Your task to perform on an android device: Search for the new nike air max shoes on Nike. Image 0: 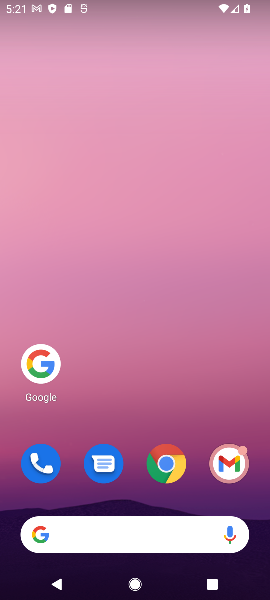
Step 0: drag from (153, 478) to (192, 166)
Your task to perform on an android device: Search for the new nike air max shoes on Nike. Image 1: 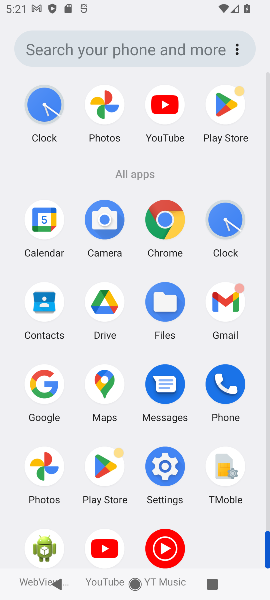
Step 1: click (38, 375)
Your task to perform on an android device: Search for the new nike air max shoes on Nike. Image 2: 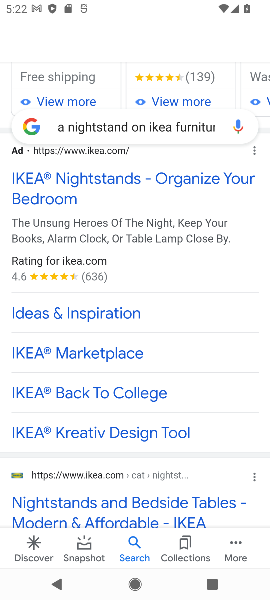
Step 2: drag from (77, 127) to (99, 535)
Your task to perform on an android device: Search for the new nike air max shoes on Nike. Image 3: 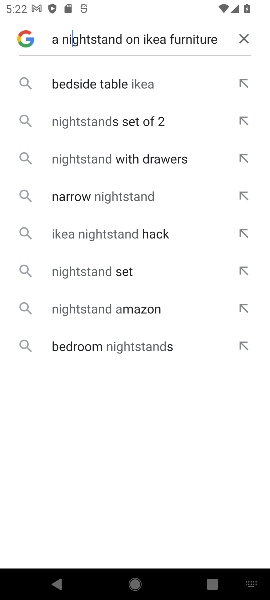
Step 3: click (242, 34)
Your task to perform on an android device: Search for the new nike air max shoes on Nike. Image 4: 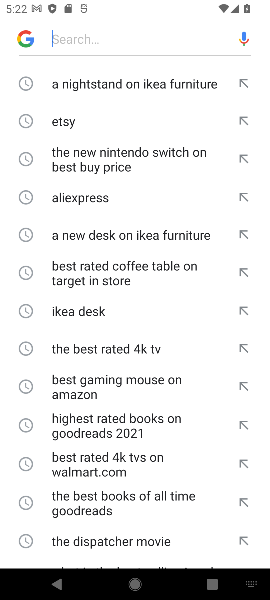
Step 4: click (148, 21)
Your task to perform on an android device: Search for the new nike air max shoes on Nike. Image 5: 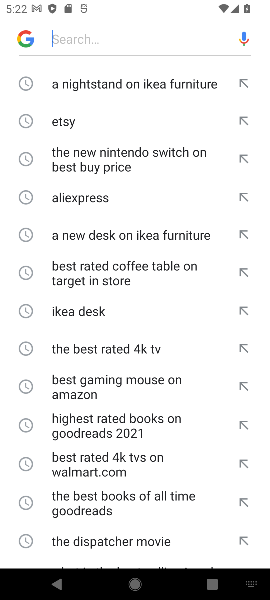
Step 5: type "the new nike air max shoes on Nike "
Your task to perform on an android device: Search for the new nike air max shoes on Nike. Image 6: 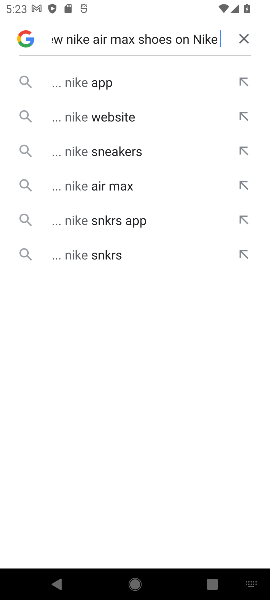
Step 6: click (111, 74)
Your task to perform on an android device: Search for the new nike air max shoes on Nike. Image 7: 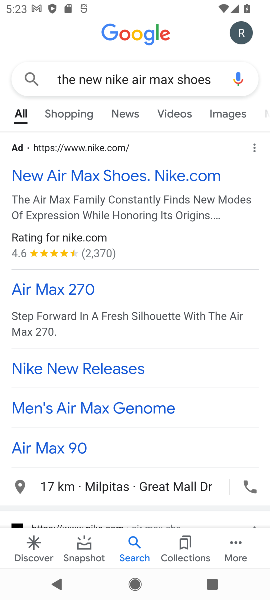
Step 7: click (105, 172)
Your task to perform on an android device: Search for the new nike air max shoes on Nike. Image 8: 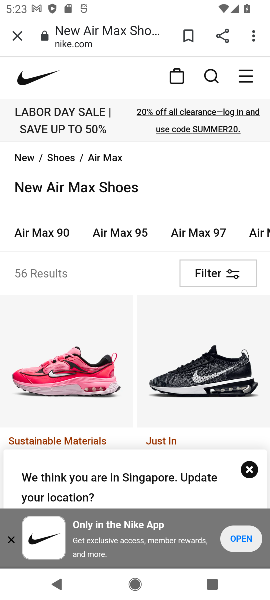
Step 8: task complete